Your task to perform on an android device: manage bookmarks in the chrome app Image 0: 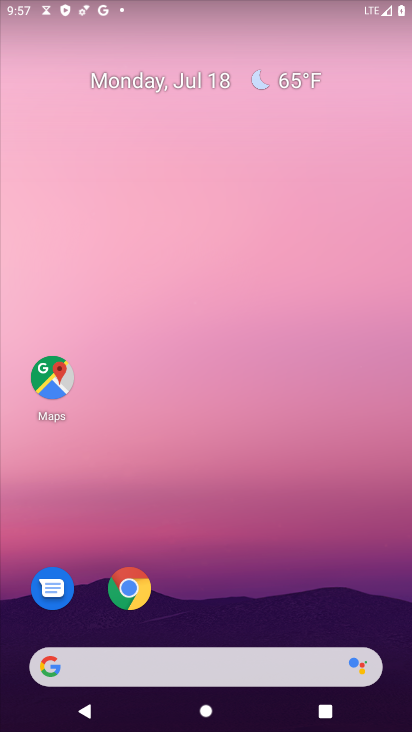
Step 0: click (129, 589)
Your task to perform on an android device: manage bookmarks in the chrome app Image 1: 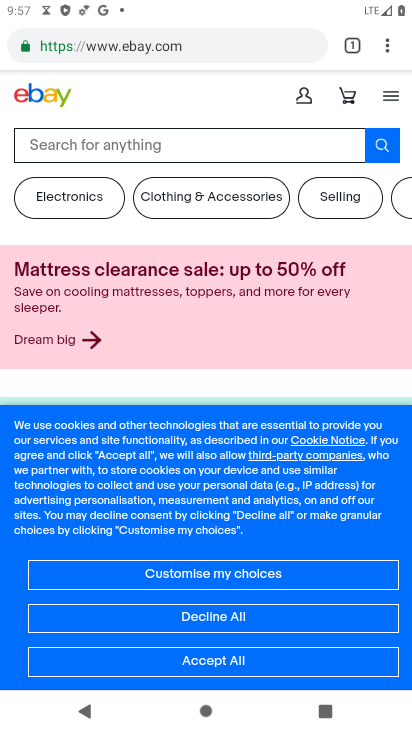
Step 1: click (388, 46)
Your task to perform on an android device: manage bookmarks in the chrome app Image 2: 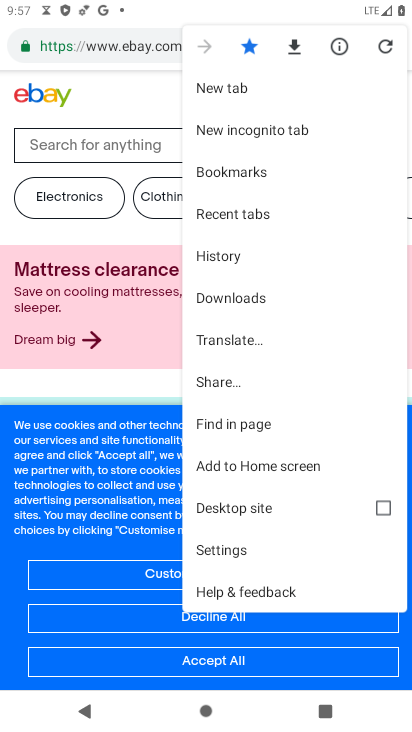
Step 2: click (252, 176)
Your task to perform on an android device: manage bookmarks in the chrome app Image 3: 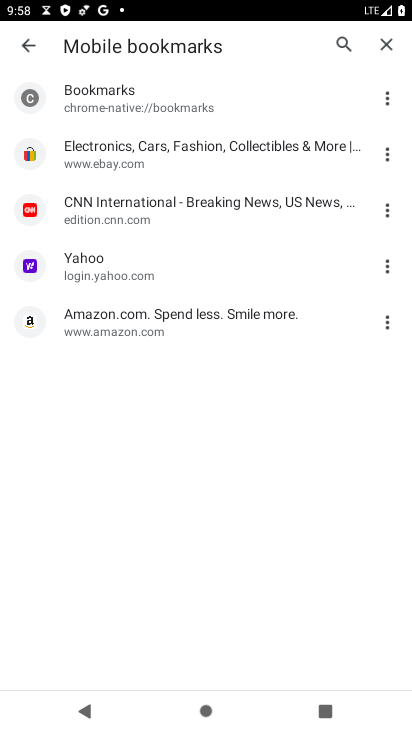
Step 3: click (389, 96)
Your task to perform on an android device: manage bookmarks in the chrome app Image 4: 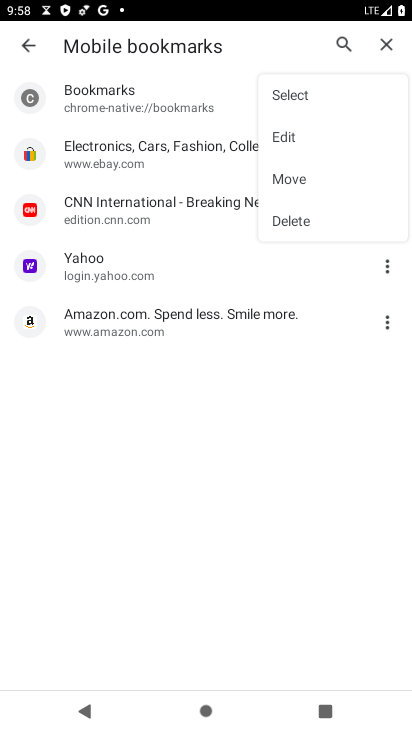
Step 4: click (292, 139)
Your task to perform on an android device: manage bookmarks in the chrome app Image 5: 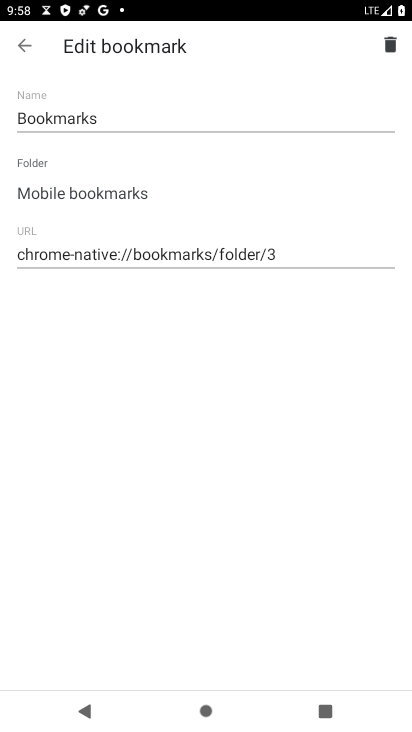
Step 5: click (394, 46)
Your task to perform on an android device: manage bookmarks in the chrome app Image 6: 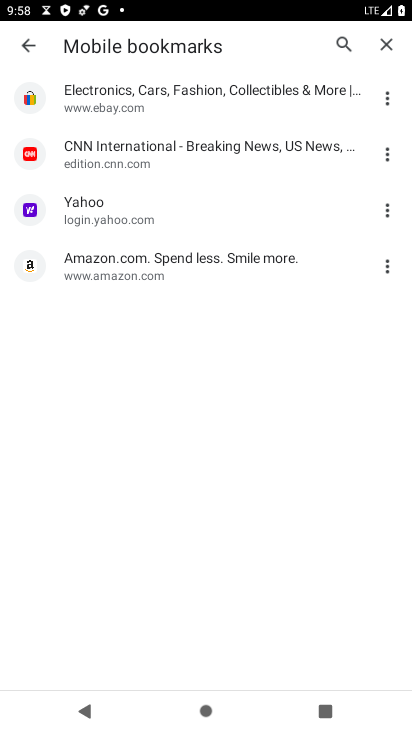
Step 6: task complete